Your task to perform on an android device: Clear the cart on newegg.com. Add "logitech g pro" to the cart on newegg.com Image 0: 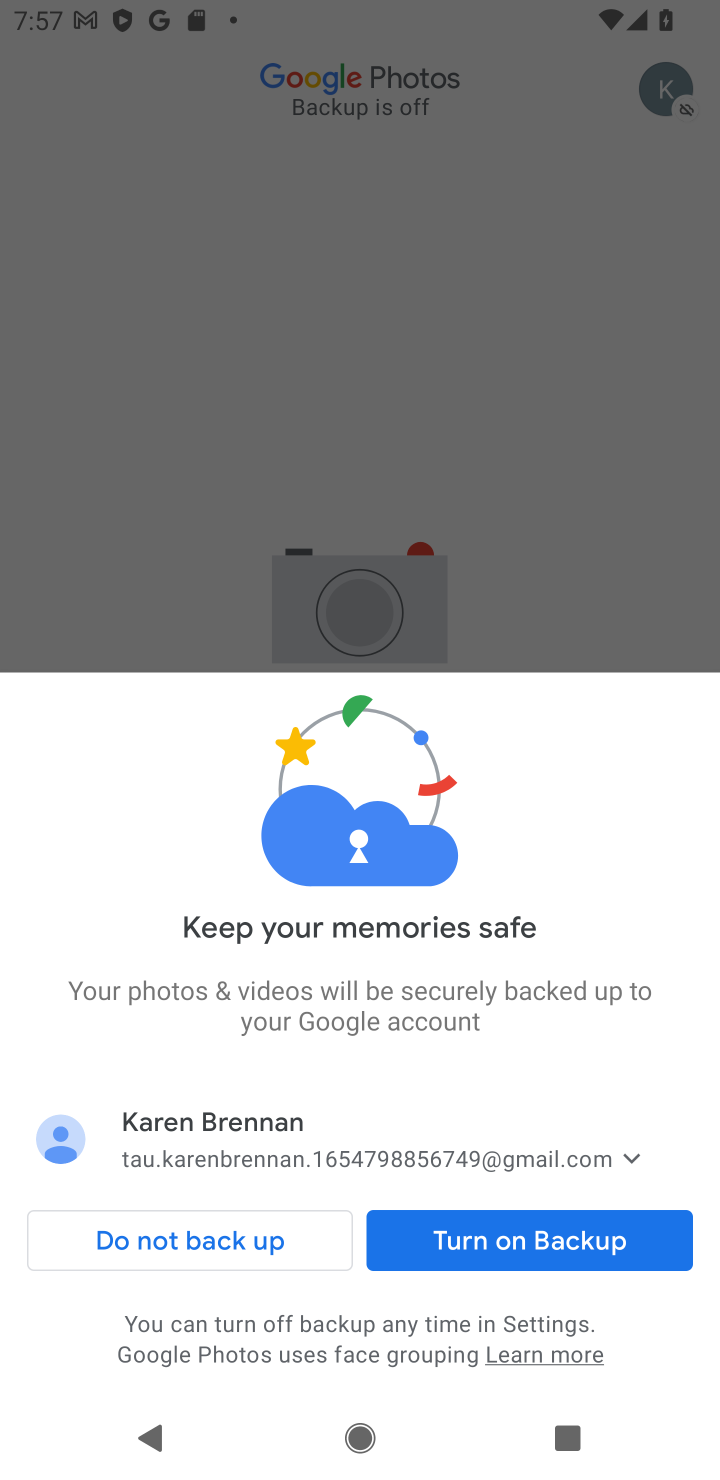
Step 0: press home button
Your task to perform on an android device: Clear the cart on newegg.com. Add "logitech g pro" to the cart on newegg.com Image 1: 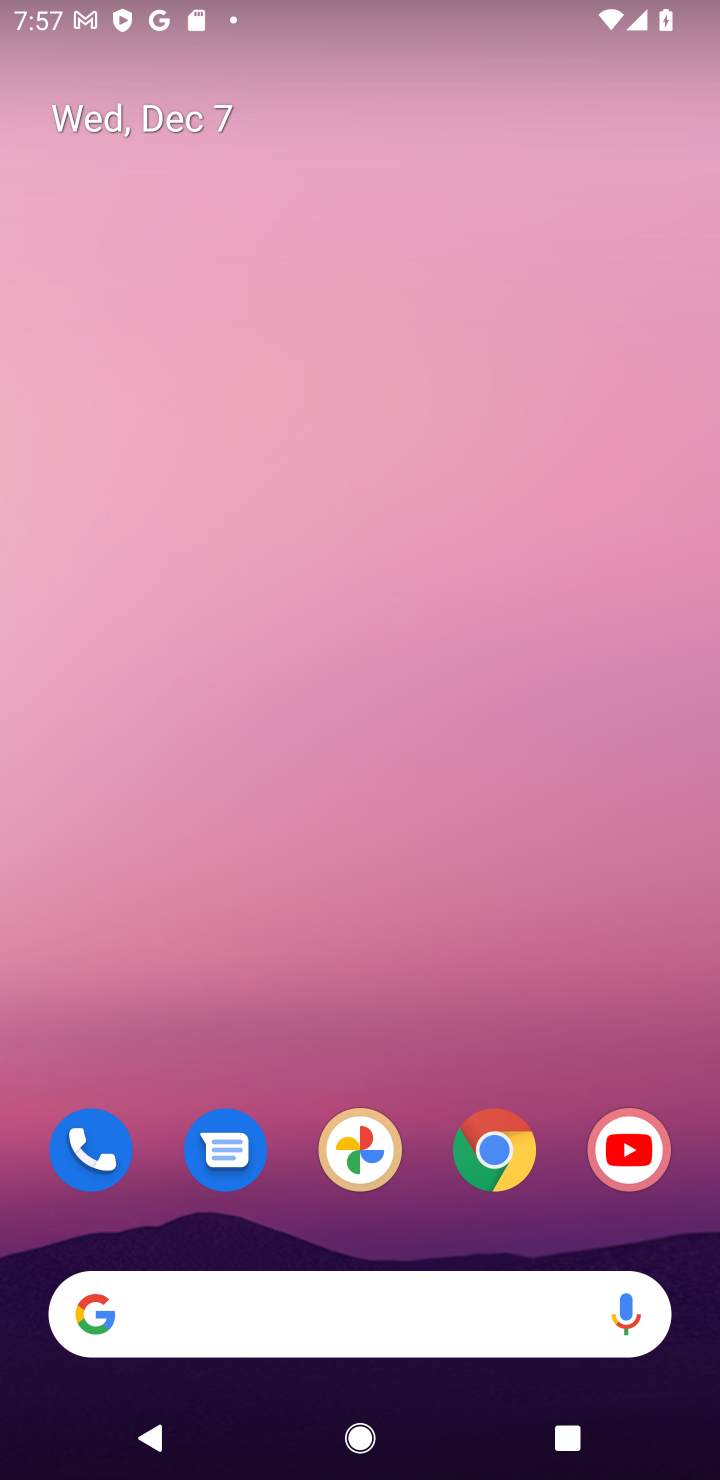
Step 1: click (495, 1137)
Your task to perform on an android device: Clear the cart on newegg.com. Add "logitech g pro" to the cart on newegg.com Image 2: 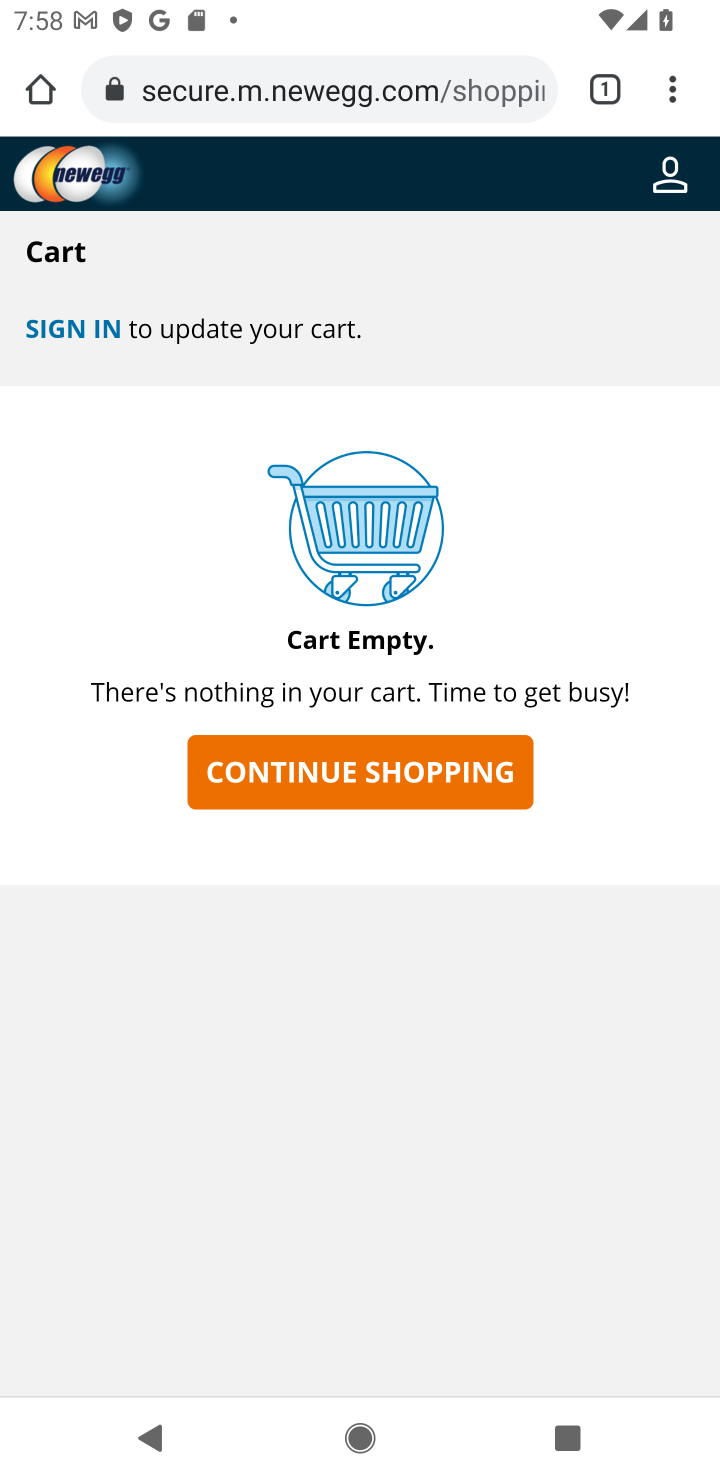
Step 2: press back button
Your task to perform on an android device: Clear the cart on newegg.com. Add "logitech g pro" to the cart on newegg.com Image 3: 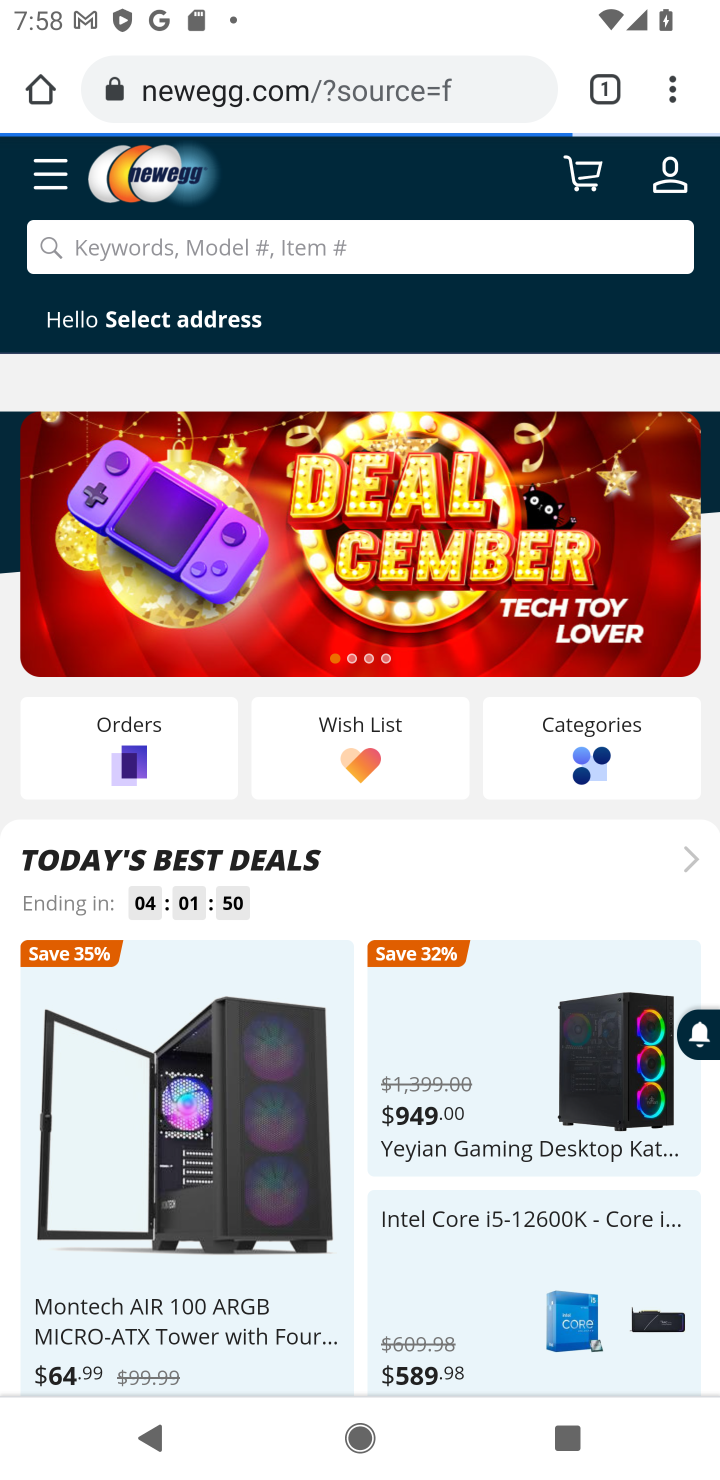
Step 3: click (604, 237)
Your task to perform on an android device: Clear the cart on newegg.com. Add "logitech g pro" to the cart on newegg.com Image 4: 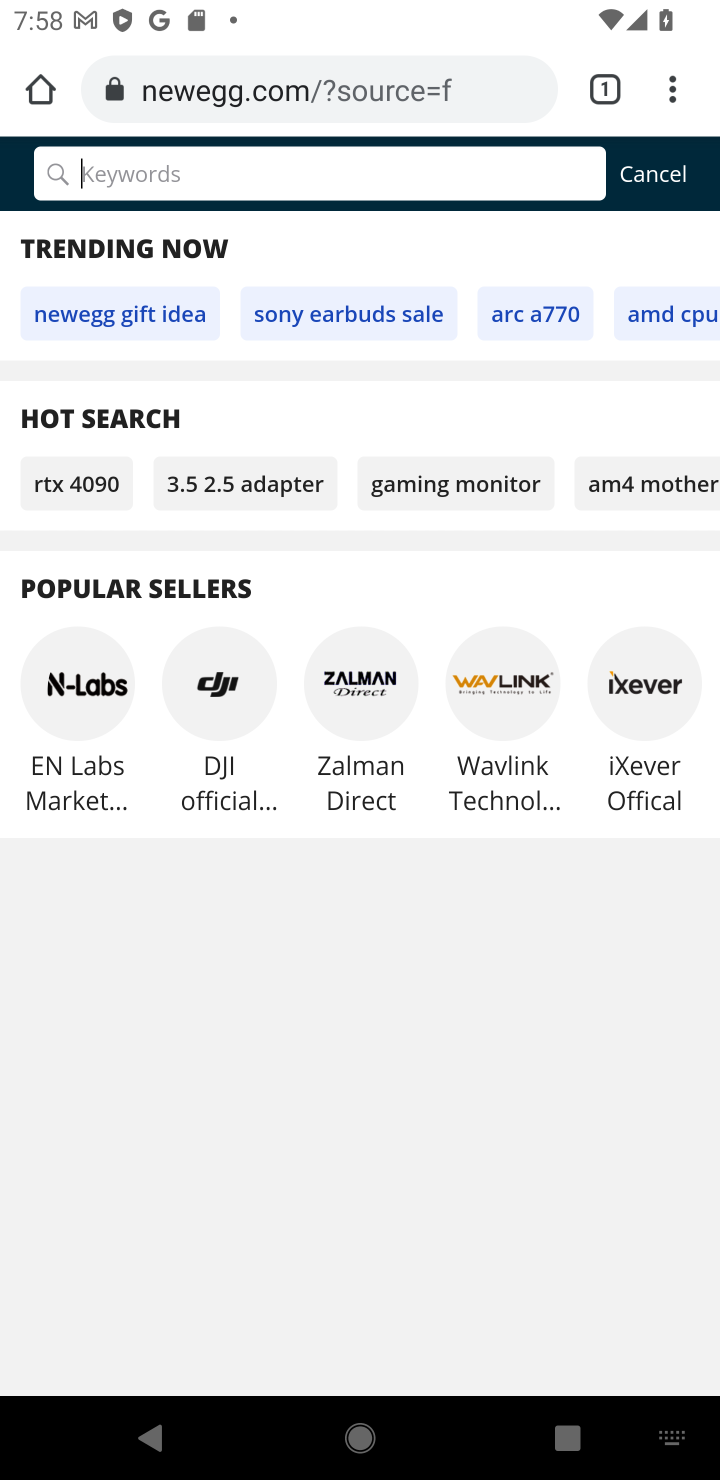
Step 4: press enter
Your task to perform on an android device: Clear the cart on newegg.com. Add "logitech g pro" to the cart on newegg.com Image 5: 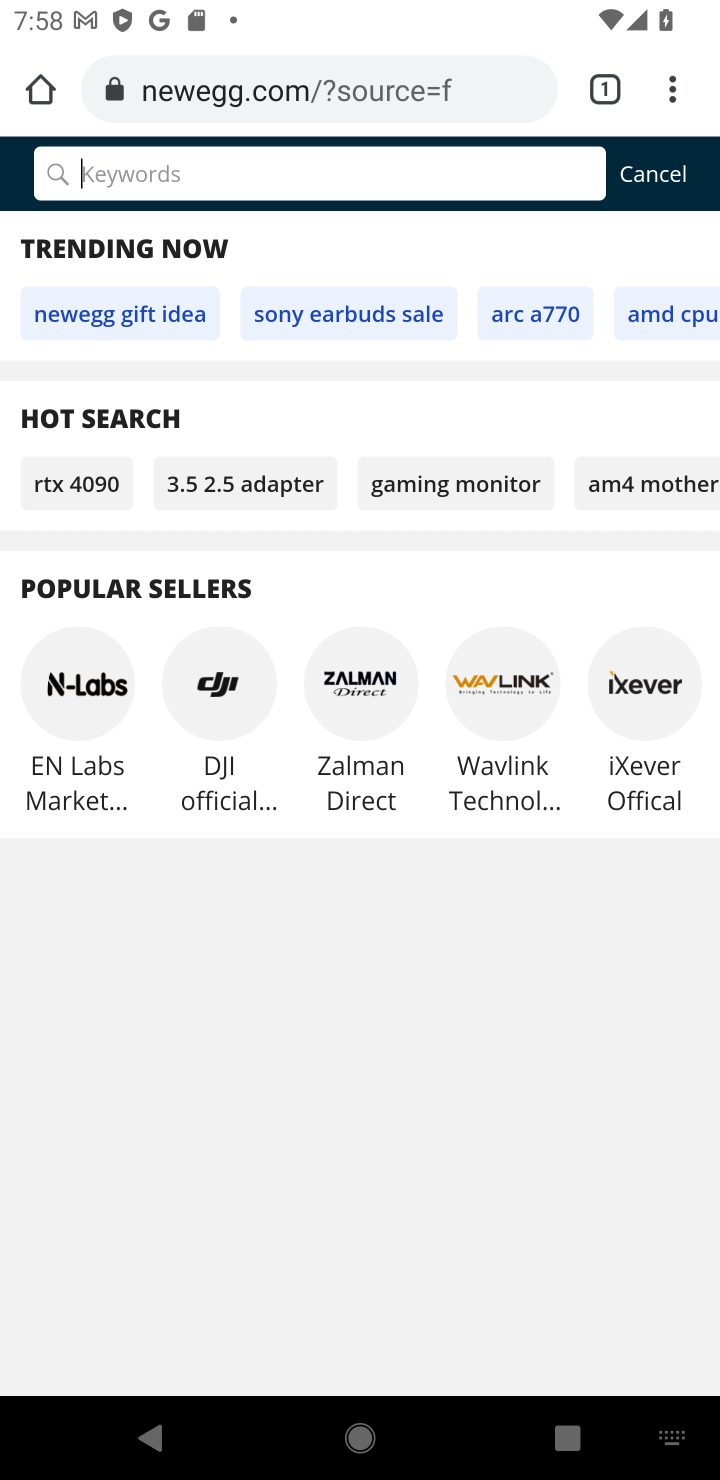
Step 5: type "logitech g pro"
Your task to perform on an android device: Clear the cart on newegg.com. Add "logitech g pro" to the cart on newegg.com Image 6: 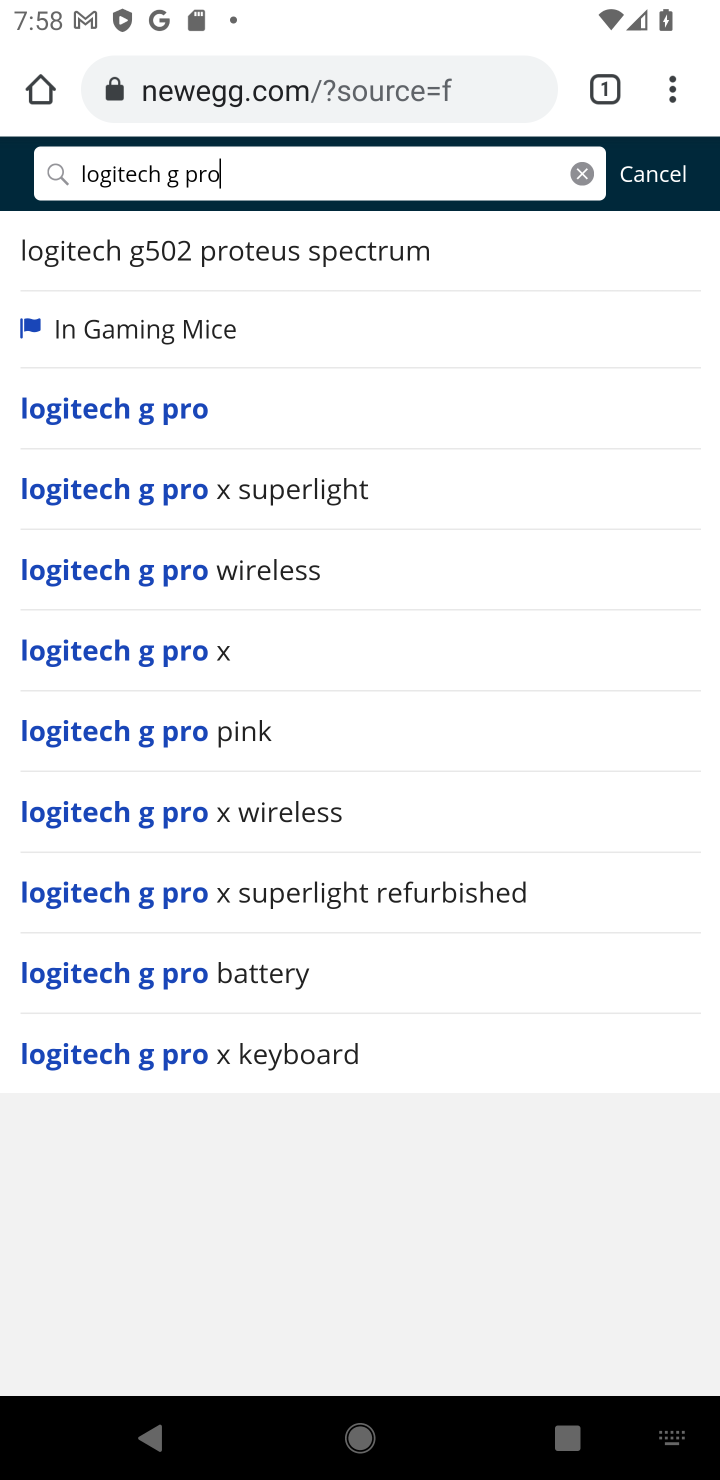
Step 6: click (184, 409)
Your task to perform on an android device: Clear the cart on newegg.com. Add "logitech g pro" to the cart on newegg.com Image 7: 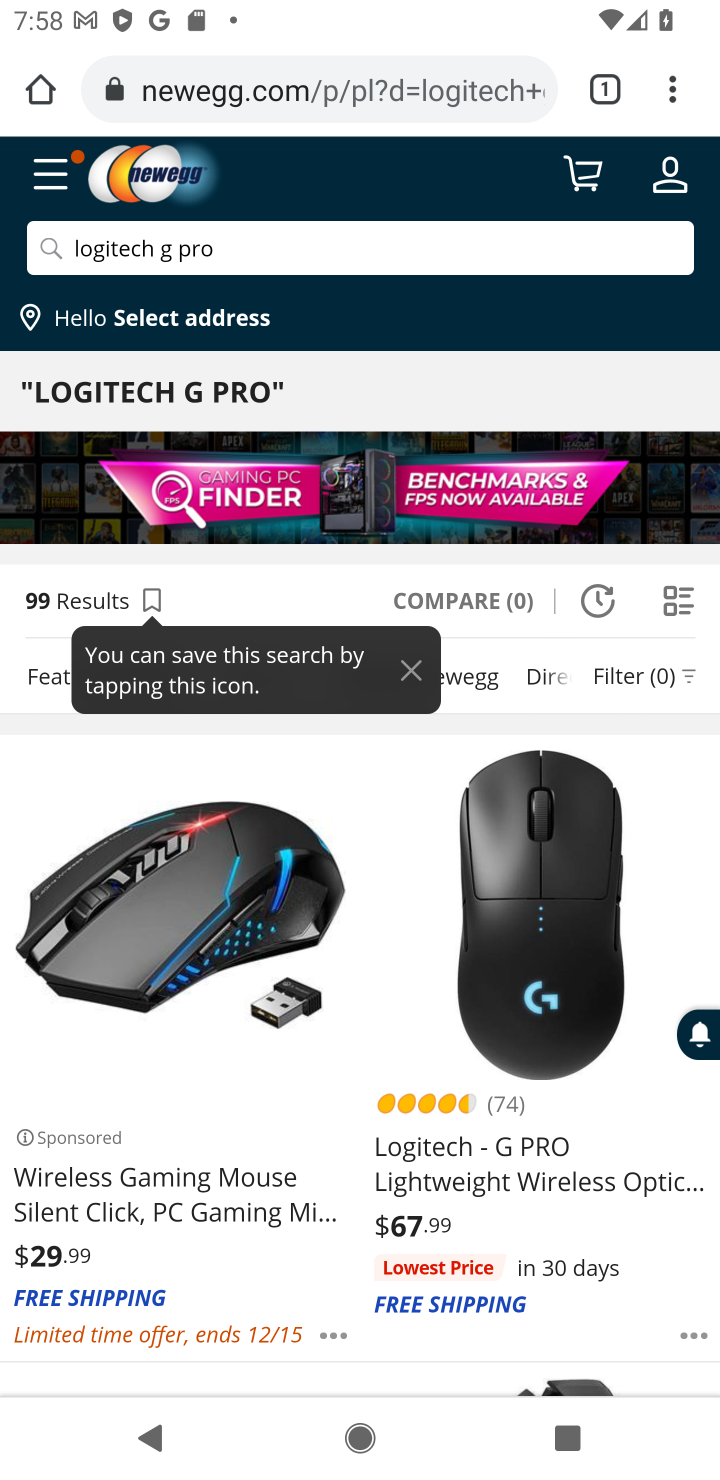
Step 7: click (527, 888)
Your task to perform on an android device: Clear the cart on newegg.com. Add "logitech g pro" to the cart on newegg.com Image 8: 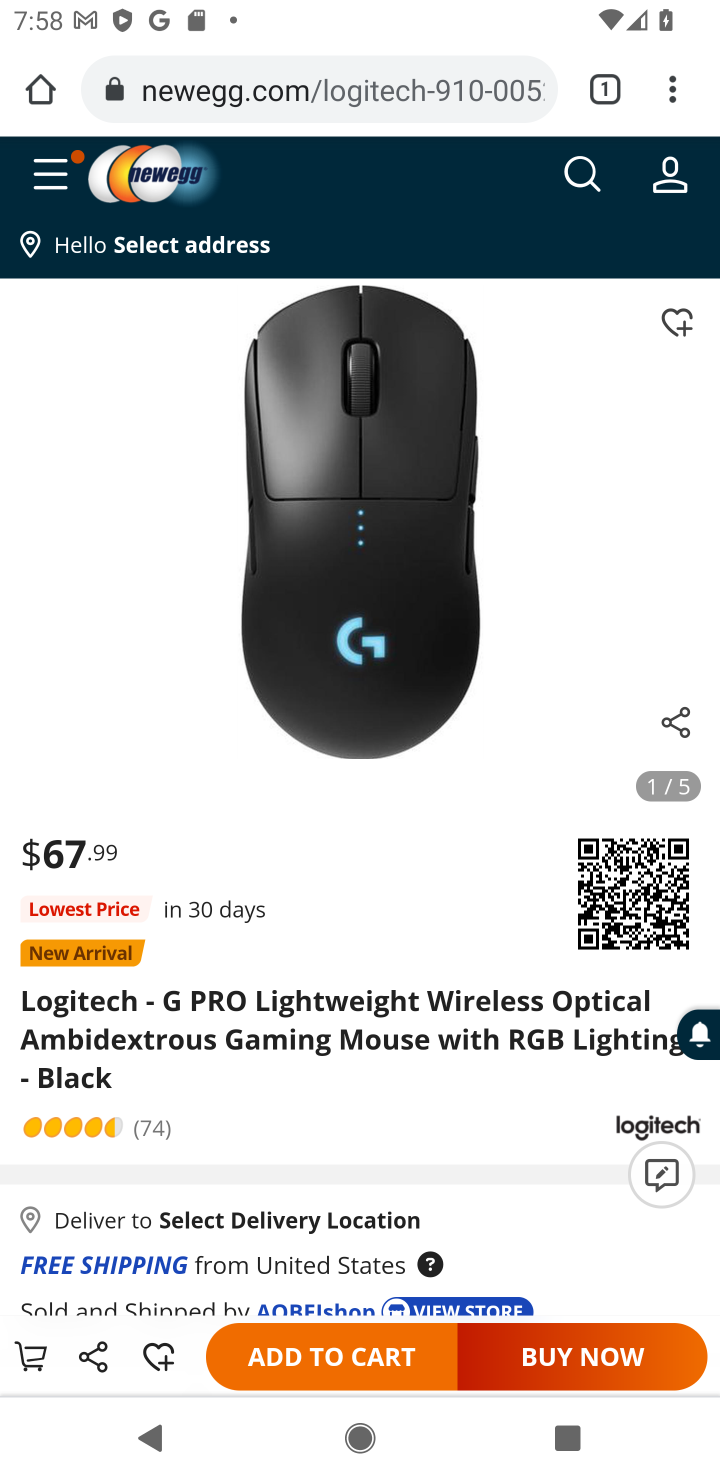
Step 8: click (320, 1359)
Your task to perform on an android device: Clear the cart on newegg.com. Add "logitech g pro" to the cart on newegg.com Image 9: 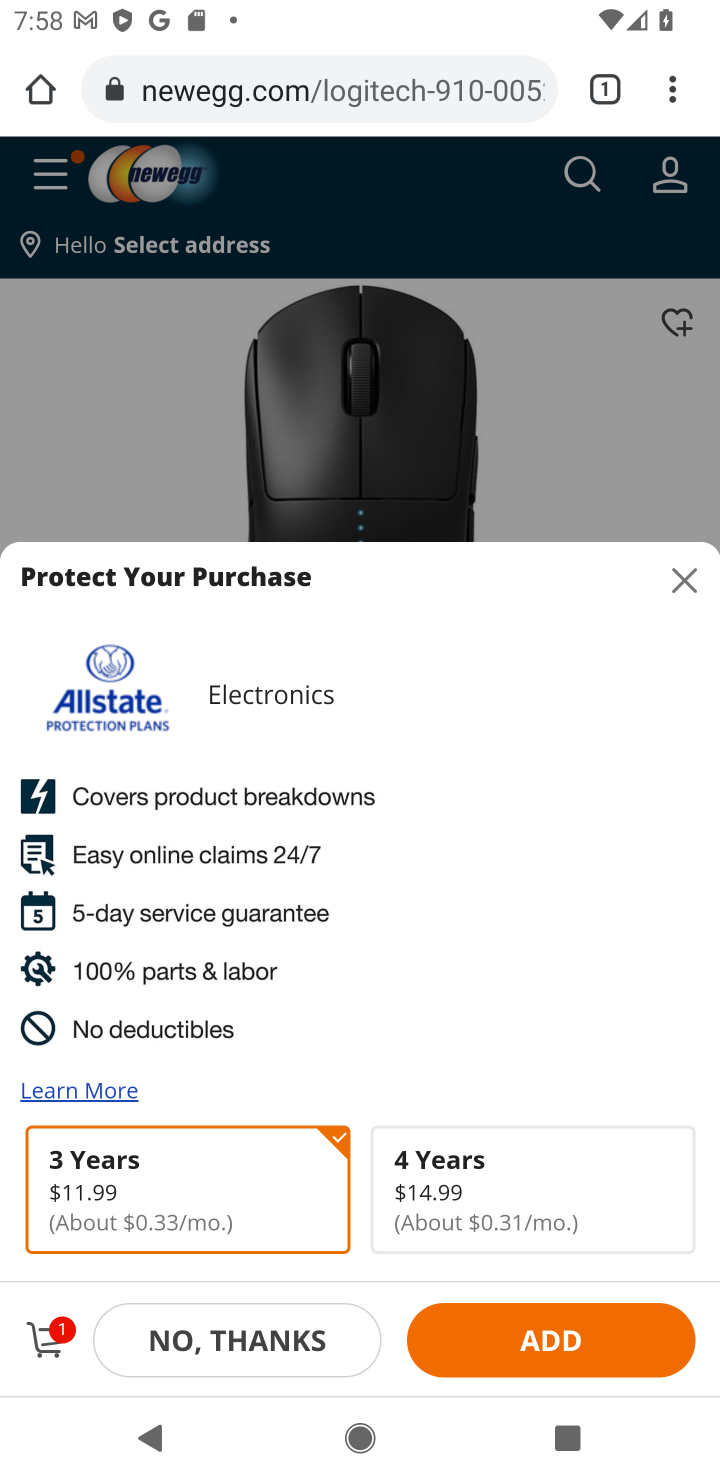
Step 9: click (26, 1356)
Your task to perform on an android device: Clear the cart on newegg.com. Add "logitech g pro" to the cart on newegg.com Image 10: 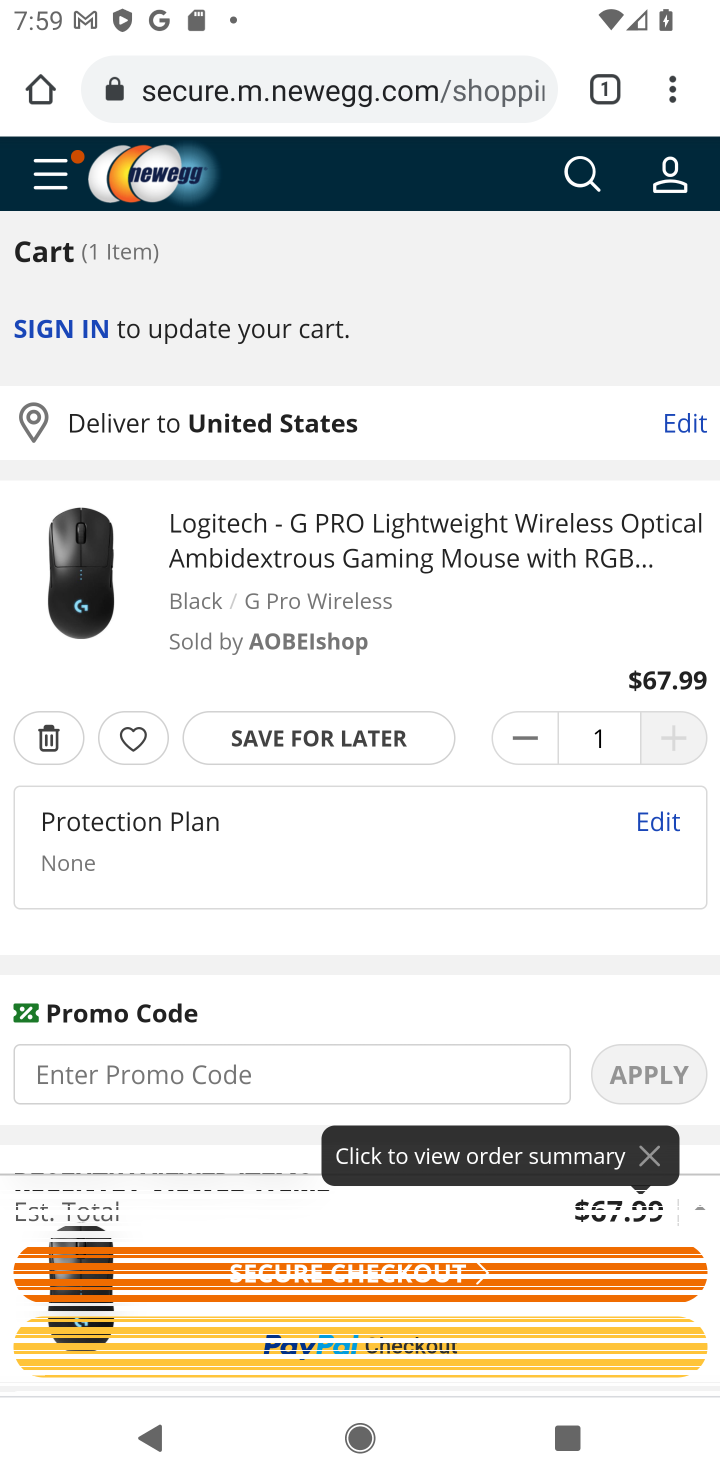
Step 10: task complete